Your task to perform on an android device: delete browsing data in the chrome app Image 0: 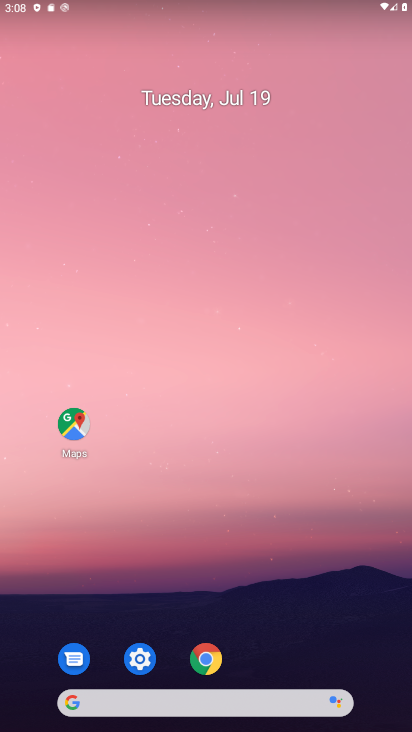
Step 0: drag from (228, 181) to (213, 67)
Your task to perform on an android device: delete browsing data in the chrome app Image 1: 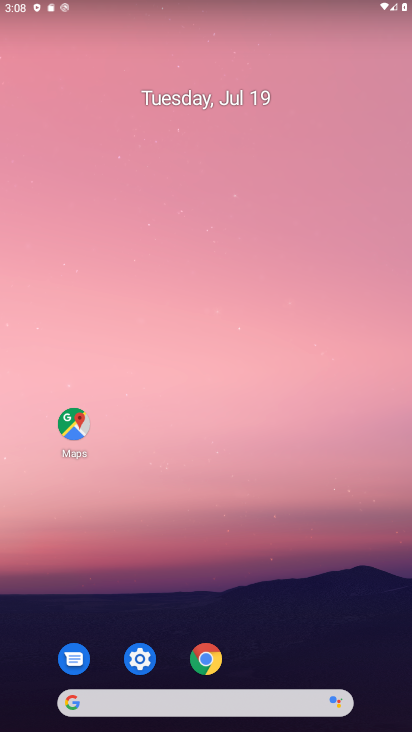
Step 1: drag from (205, 685) to (183, 279)
Your task to perform on an android device: delete browsing data in the chrome app Image 2: 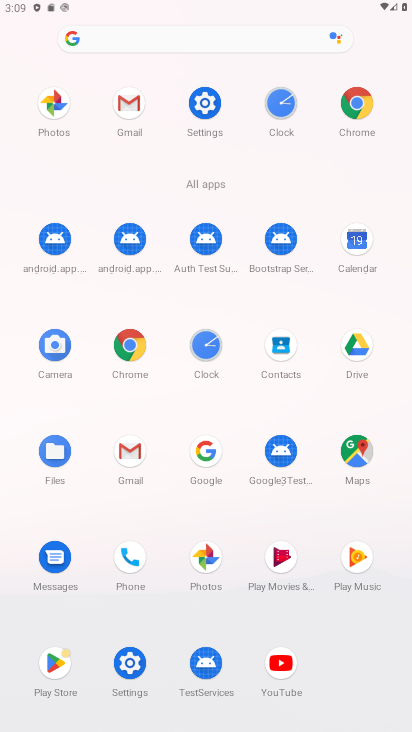
Step 2: click (357, 100)
Your task to perform on an android device: delete browsing data in the chrome app Image 3: 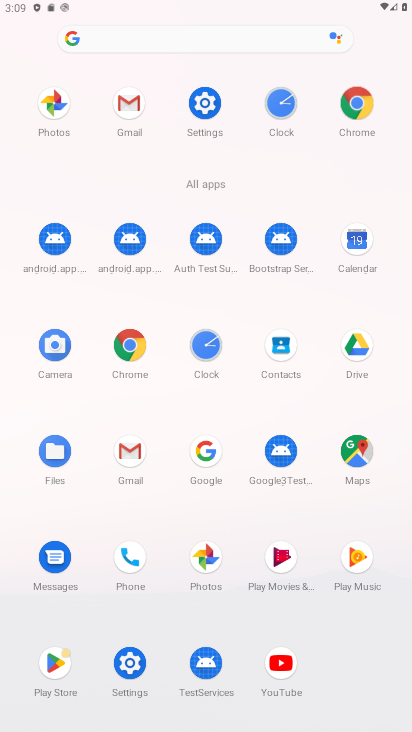
Step 3: click (356, 98)
Your task to perform on an android device: delete browsing data in the chrome app Image 4: 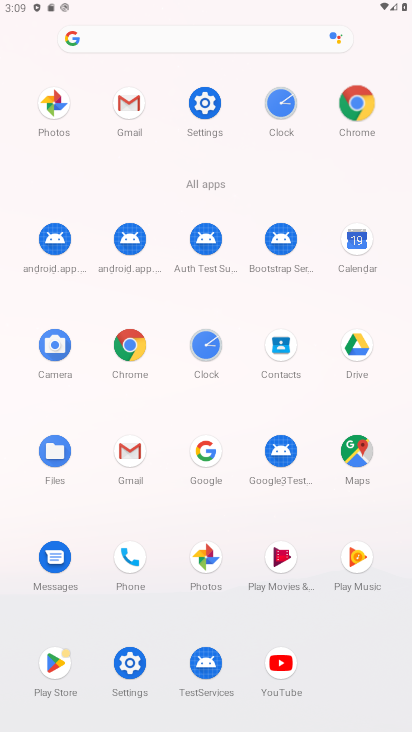
Step 4: click (352, 100)
Your task to perform on an android device: delete browsing data in the chrome app Image 5: 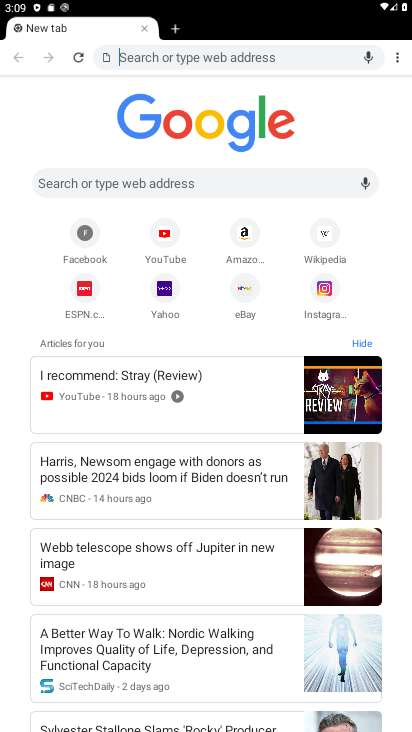
Step 5: drag from (394, 55) to (287, 134)
Your task to perform on an android device: delete browsing data in the chrome app Image 6: 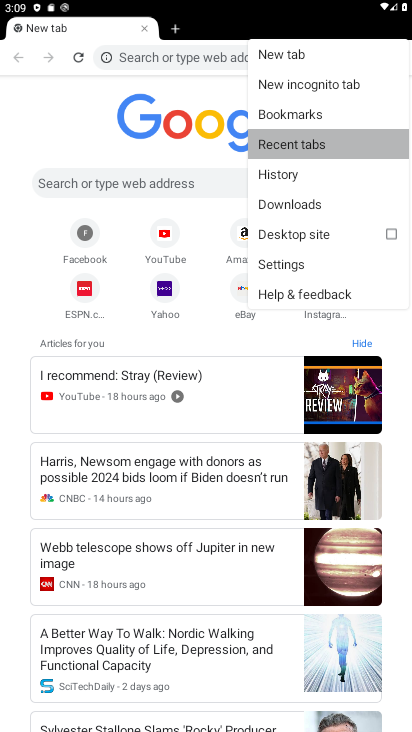
Step 6: click (287, 134)
Your task to perform on an android device: delete browsing data in the chrome app Image 7: 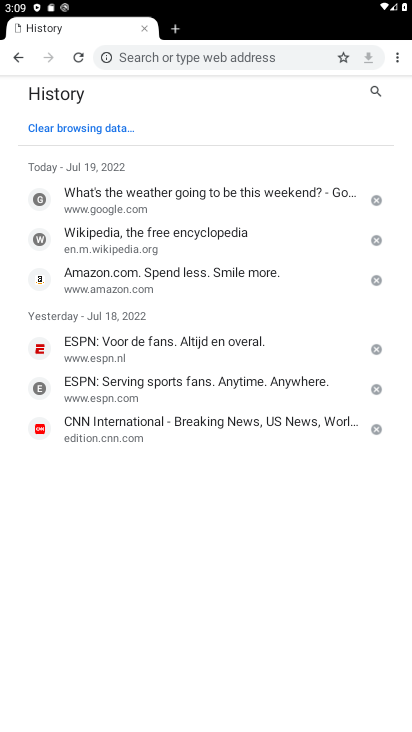
Step 7: click (368, 193)
Your task to perform on an android device: delete browsing data in the chrome app Image 8: 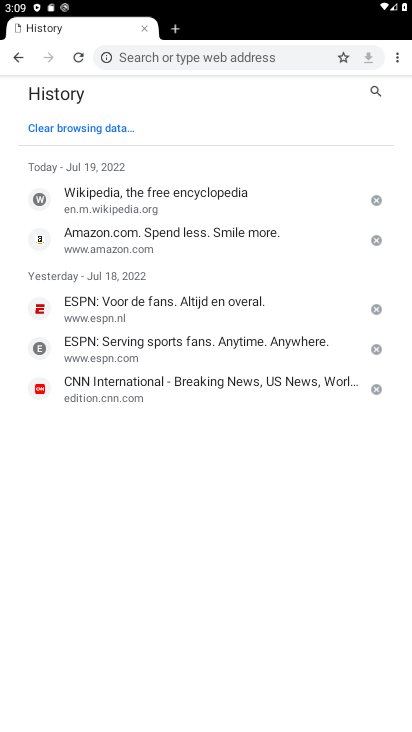
Step 8: click (375, 239)
Your task to perform on an android device: delete browsing data in the chrome app Image 9: 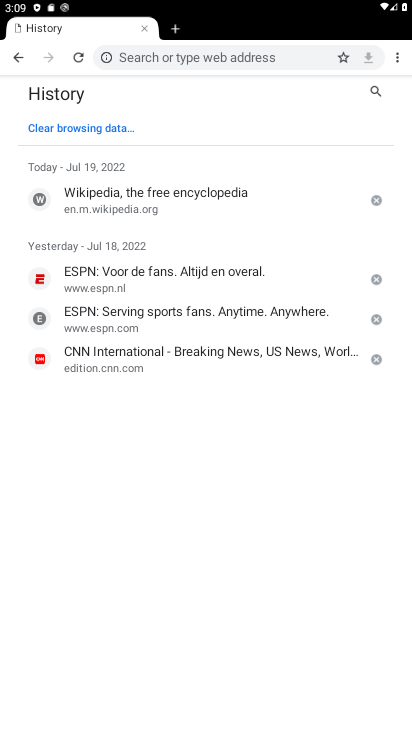
Step 9: click (375, 273)
Your task to perform on an android device: delete browsing data in the chrome app Image 10: 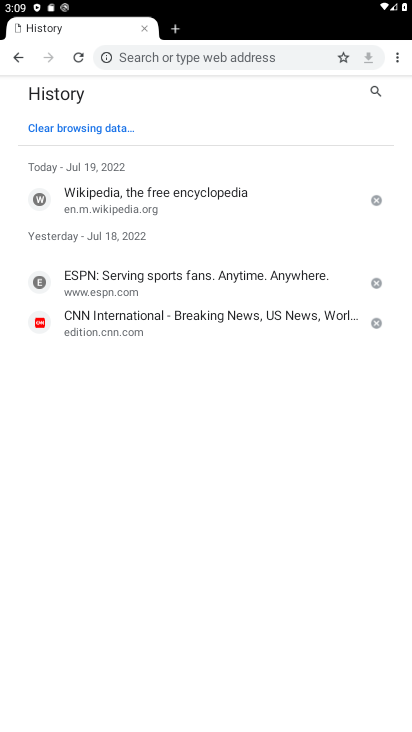
Step 10: click (100, 128)
Your task to perform on an android device: delete browsing data in the chrome app Image 11: 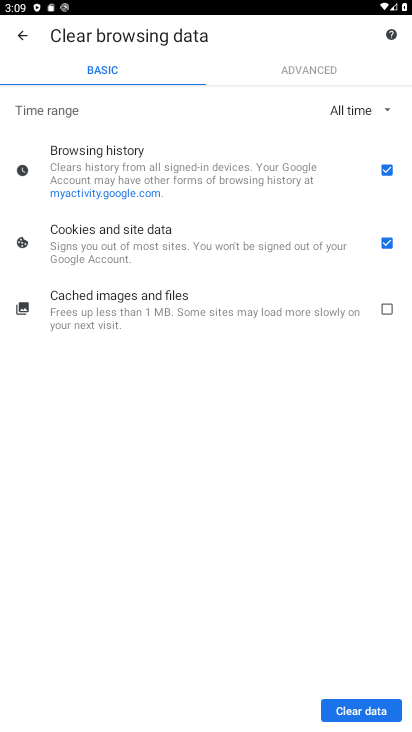
Step 11: click (344, 709)
Your task to perform on an android device: delete browsing data in the chrome app Image 12: 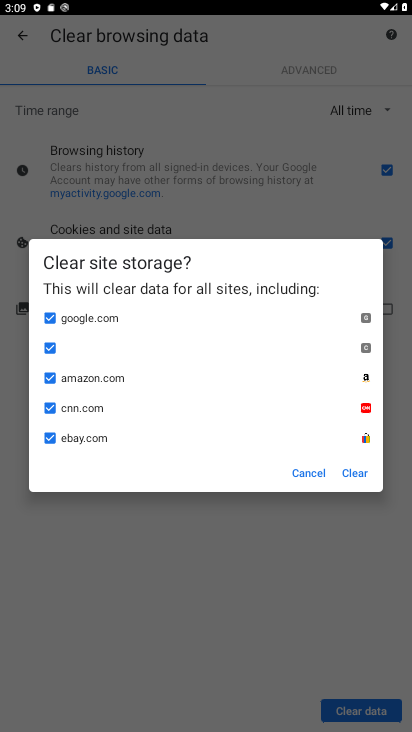
Step 12: click (360, 473)
Your task to perform on an android device: delete browsing data in the chrome app Image 13: 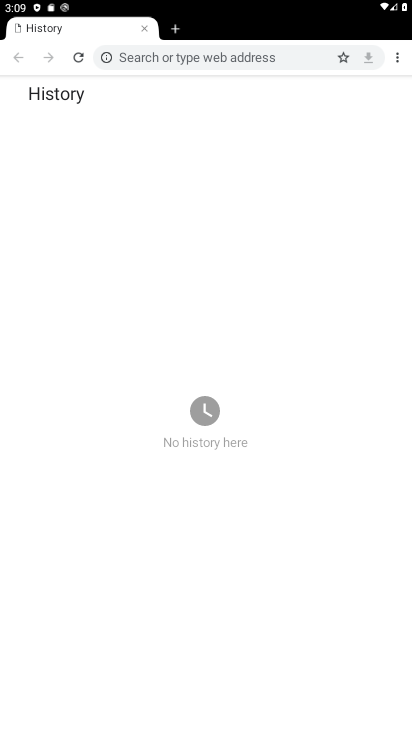
Step 13: task complete